Your task to perform on an android device: turn off translation in the chrome app Image 0: 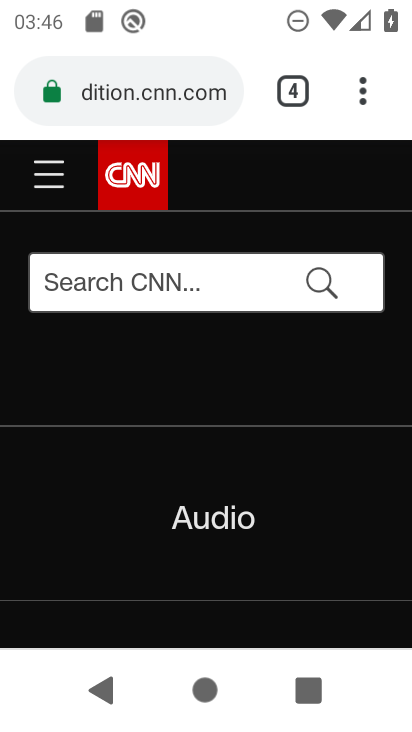
Step 0: press home button
Your task to perform on an android device: turn off translation in the chrome app Image 1: 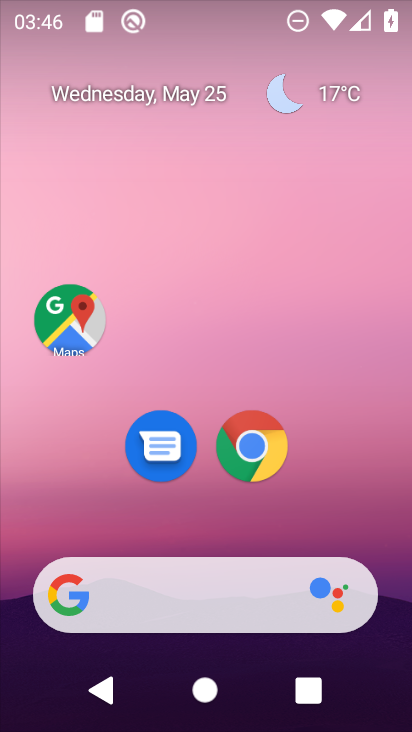
Step 1: click (252, 469)
Your task to perform on an android device: turn off translation in the chrome app Image 2: 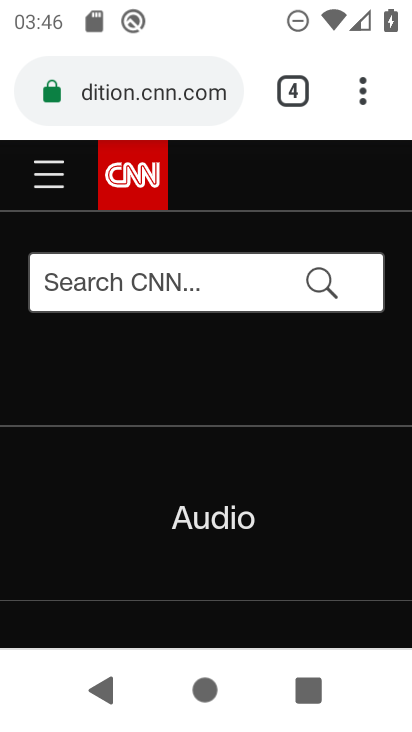
Step 2: drag from (360, 93) to (139, 477)
Your task to perform on an android device: turn off translation in the chrome app Image 3: 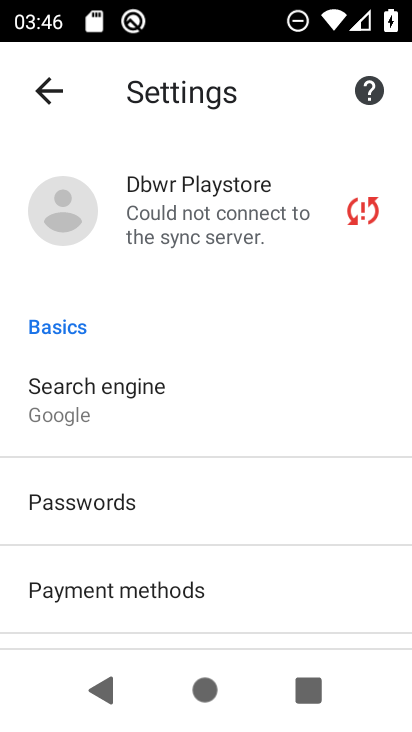
Step 3: drag from (114, 554) to (114, 80)
Your task to perform on an android device: turn off translation in the chrome app Image 4: 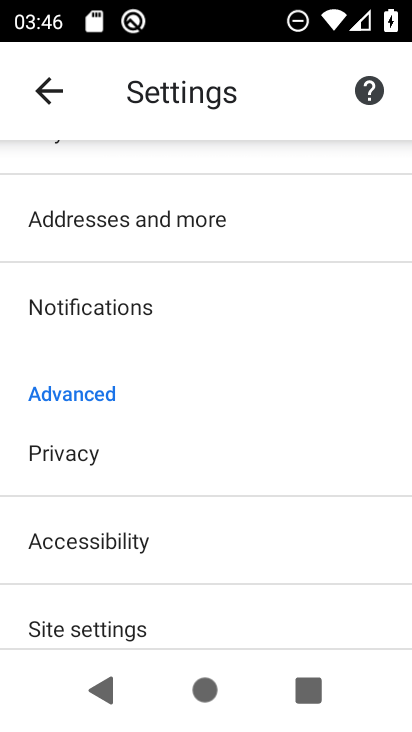
Step 4: drag from (177, 595) to (141, 194)
Your task to perform on an android device: turn off translation in the chrome app Image 5: 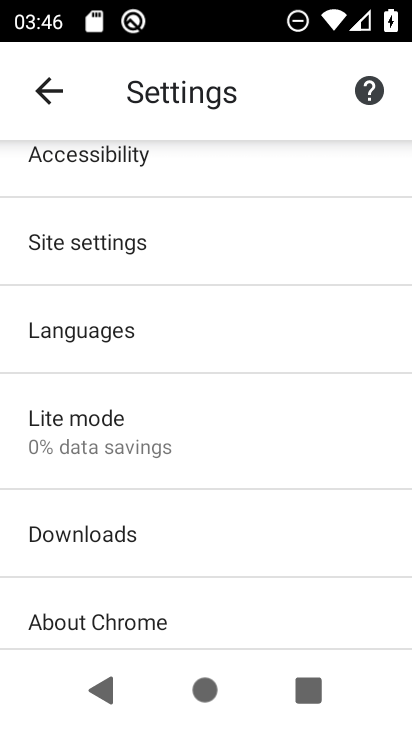
Step 5: click (114, 323)
Your task to perform on an android device: turn off translation in the chrome app Image 6: 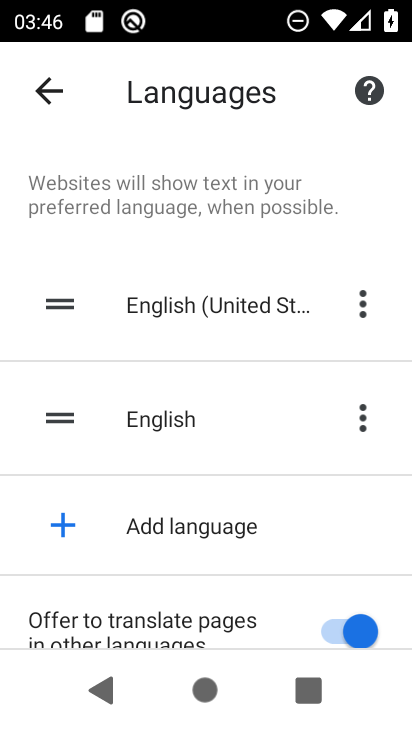
Step 6: click (350, 630)
Your task to perform on an android device: turn off translation in the chrome app Image 7: 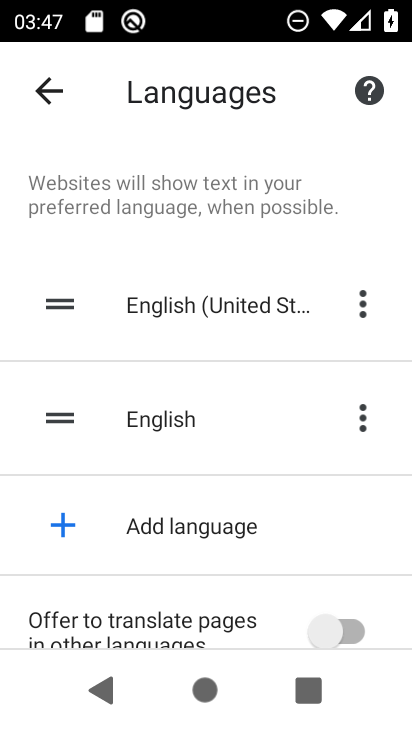
Step 7: task complete